Your task to perform on an android device: check android version Image 0: 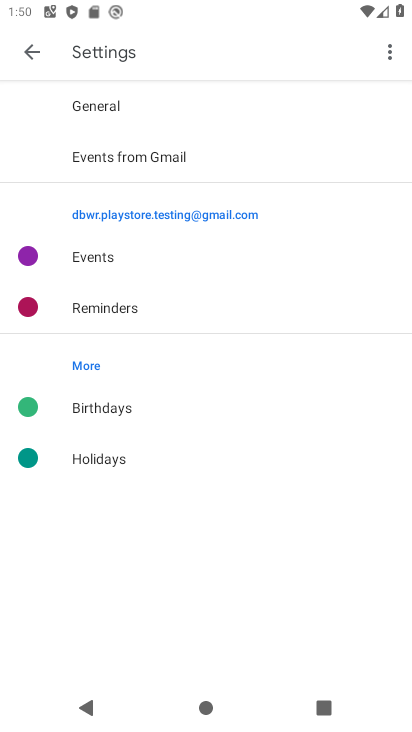
Step 0: press home button
Your task to perform on an android device: check android version Image 1: 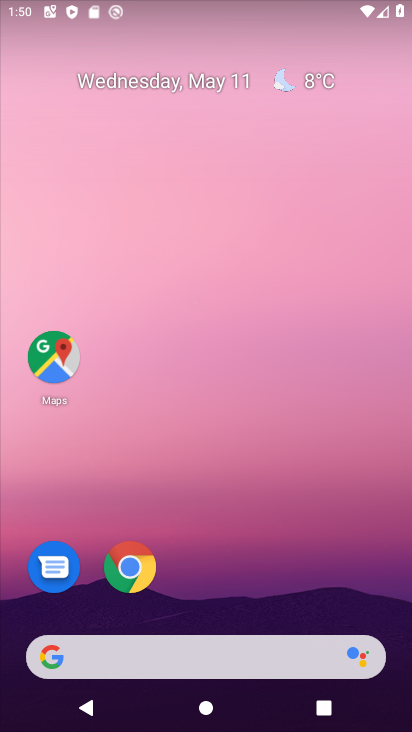
Step 1: drag from (335, 567) to (211, 160)
Your task to perform on an android device: check android version Image 2: 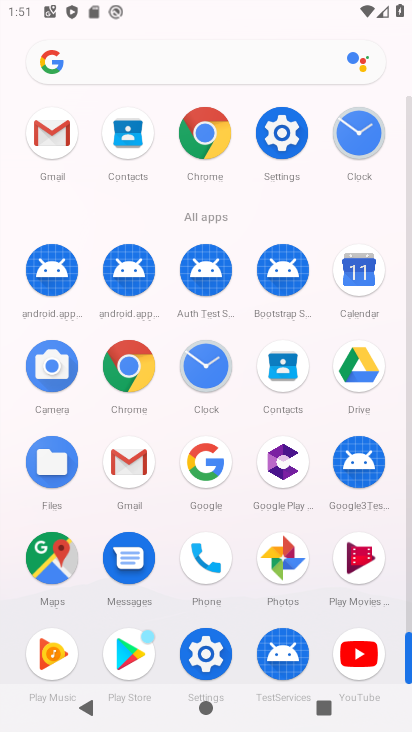
Step 2: drag from (234, 228) to (200, 32)
Your task to perform on an android device: check android version Image 3: 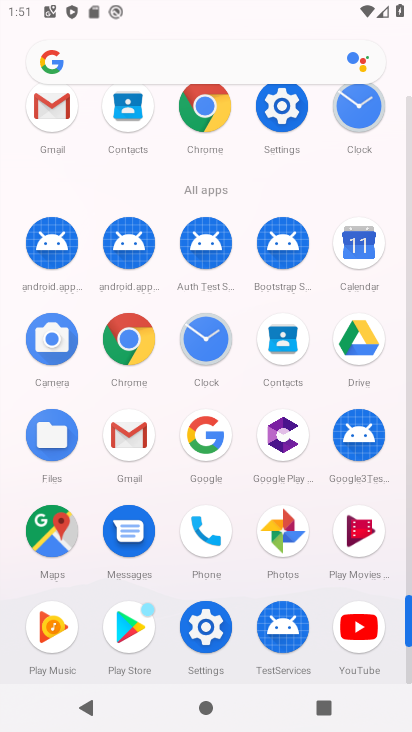
Step 3: click (211, 634)
Your task to perform on an android device: check android version Image 4: 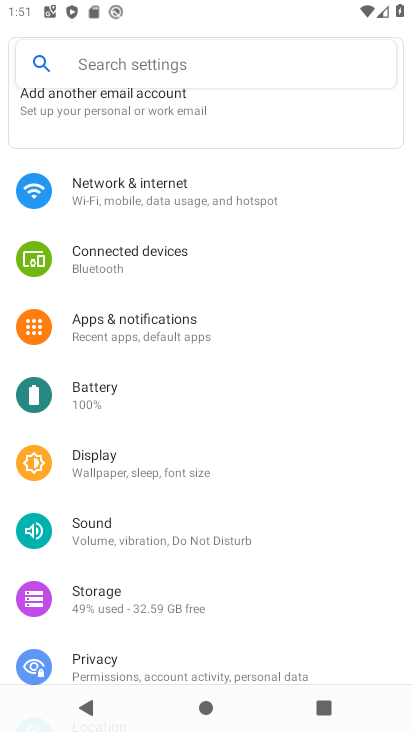
Step 4: drag from (323, 617) to (268, 302)
Your task to perform on an android device: check android version Image 5: 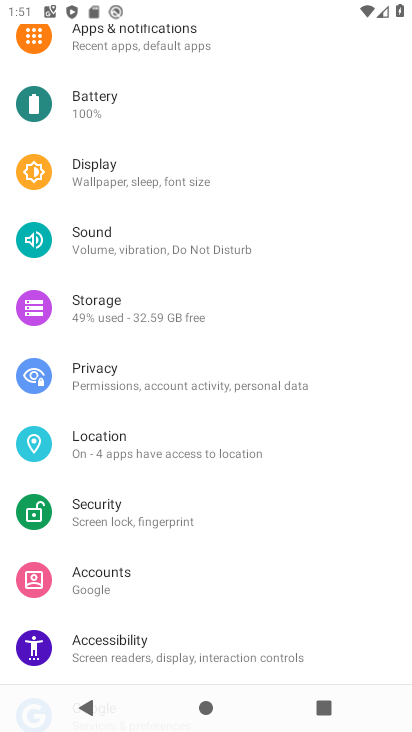
Step 5: drag from (328, 631) to (290, 441)
Your task to perform on an android device: check android version Image 6: 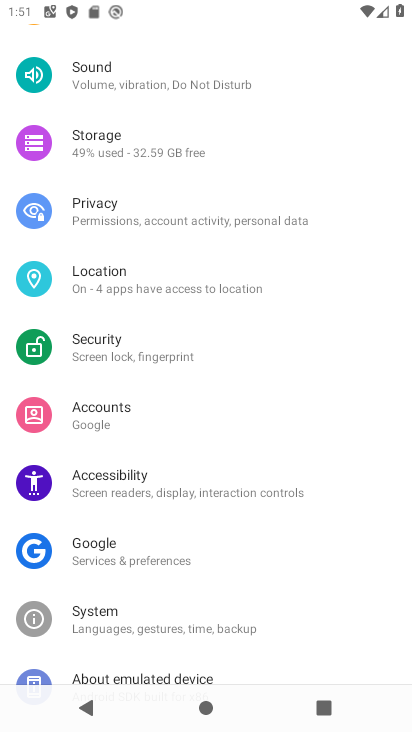
Step 6: drag from (278, 649) to (246, 456)
Your task to perform on an android device: check android version Image 7: 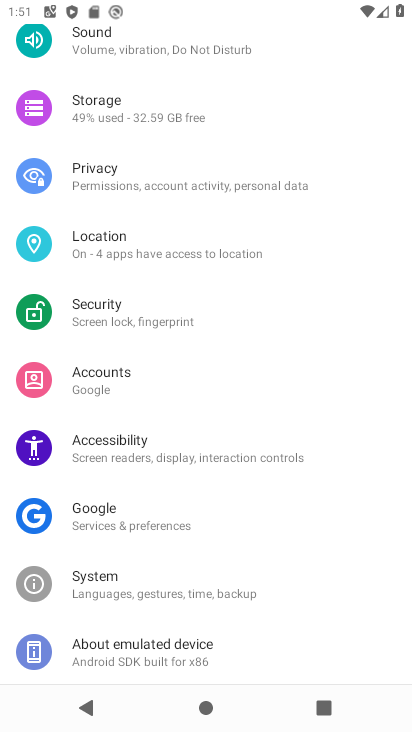
Step 7: drag from (292, 634) to (259, 452)
Your task to perform on an android device: check android version Image 8: 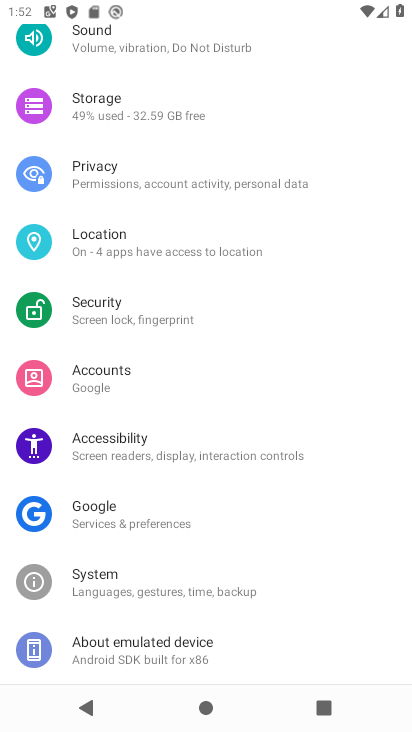
Step 8: click (186, 641)
Your task to perform on an android device: check android version Image 9: 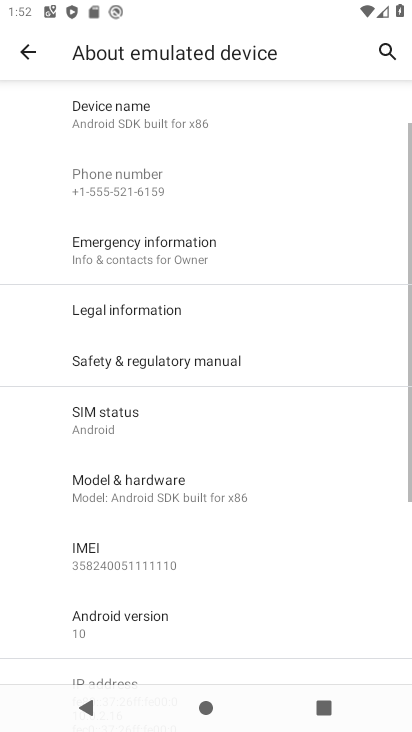
Step 9: click (178, 614)
Your task to perform on an android device: check android version Image 10: 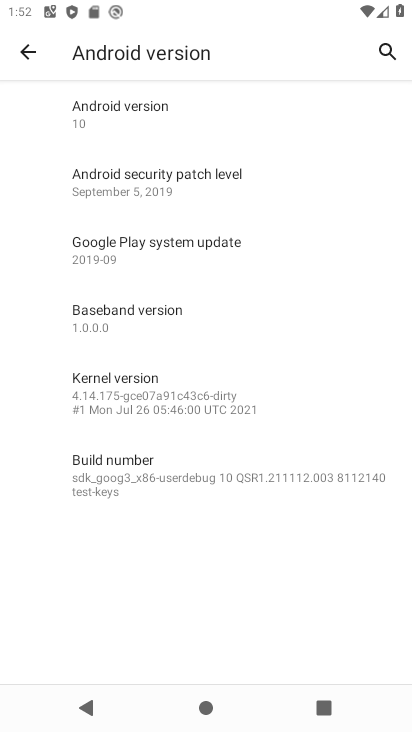
Step 10: task complete